Your task to perform on an android device: open chrome and create a bookmark for the current page Image 0: 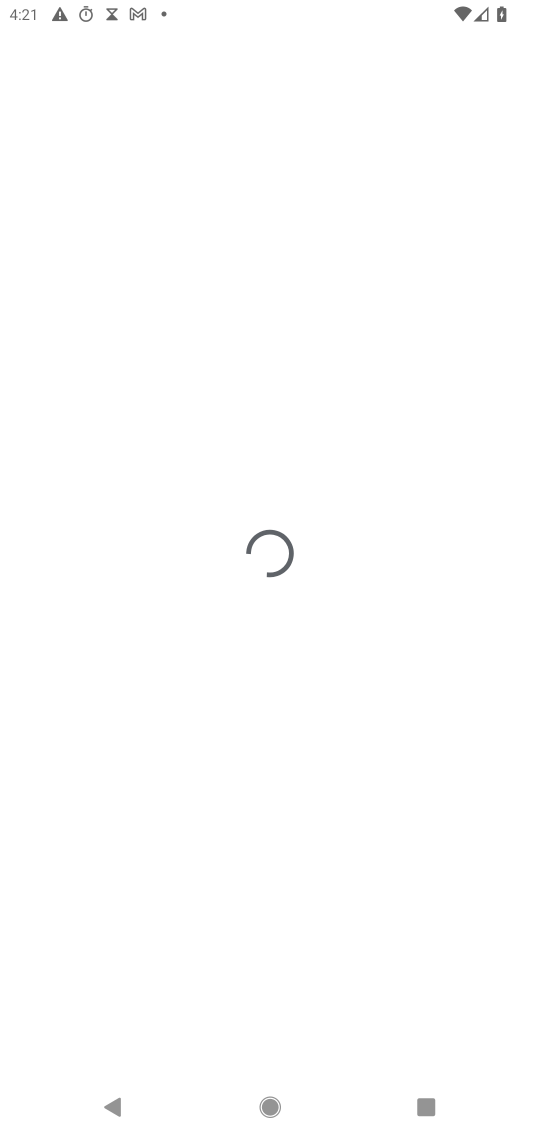
Step 0: press home button
Your task to perform on an android device: open chrome and create a bookmark for the current page Image 1: 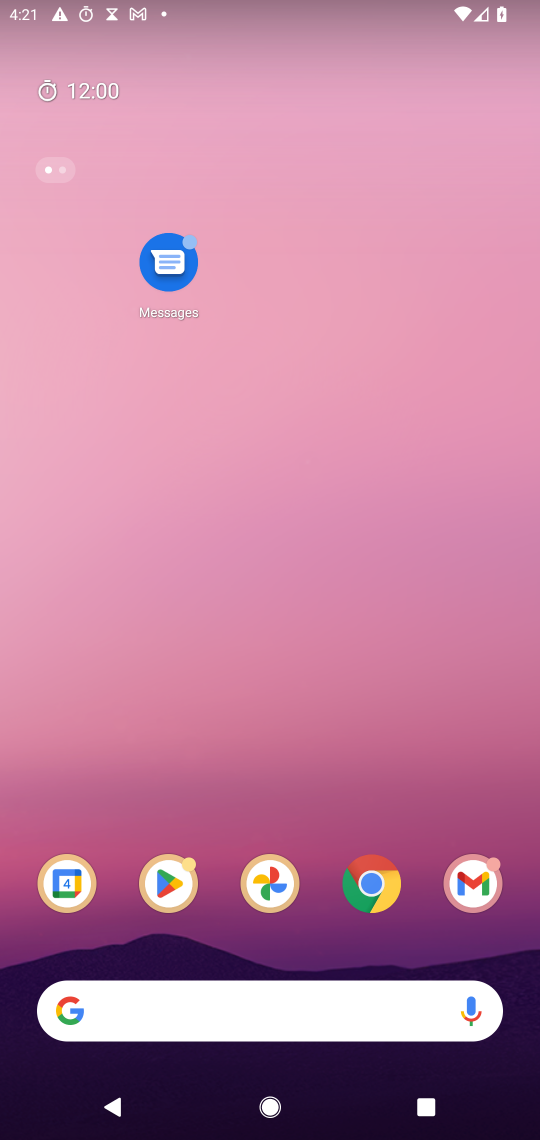
Step 1: drag from (316, 756) to (326, 116)
Your task to perform on an android device: open chrome and create a bookmark for the current page Image 2: 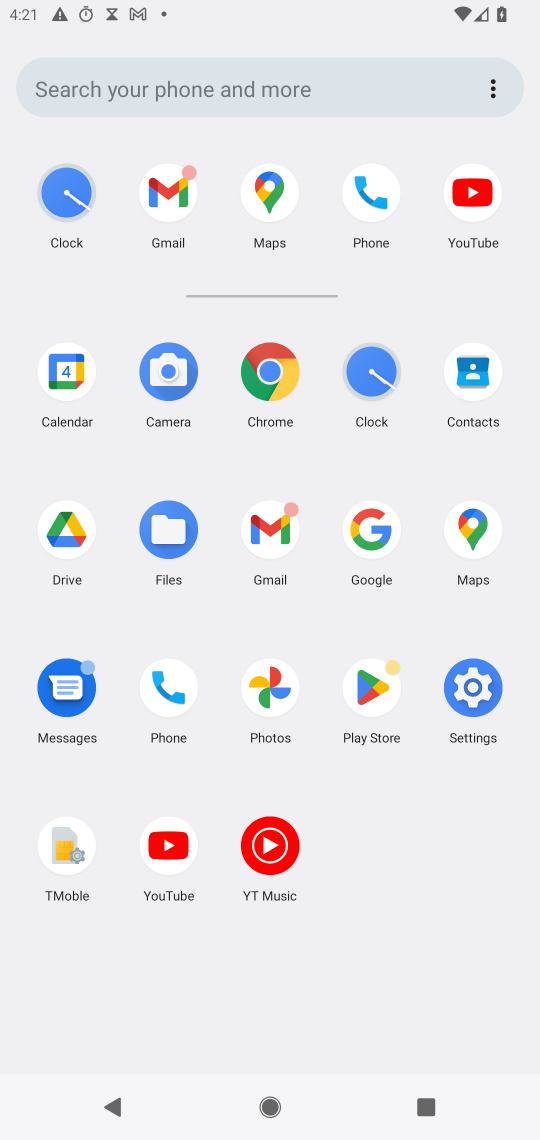
Step 2: click (273, 370)
Your task to perform on an android device: open chrome and create a bookmark for the current page Image 3: 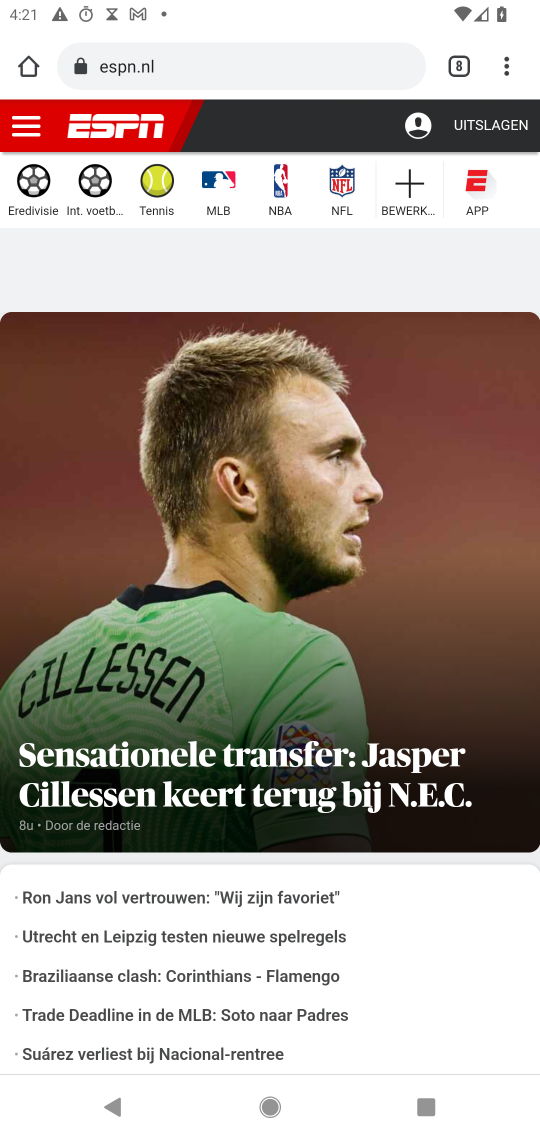
Step 3: click (508, 72)
Your task to perform on an android device: open chrome and create a bookmark for the current page Image 4: 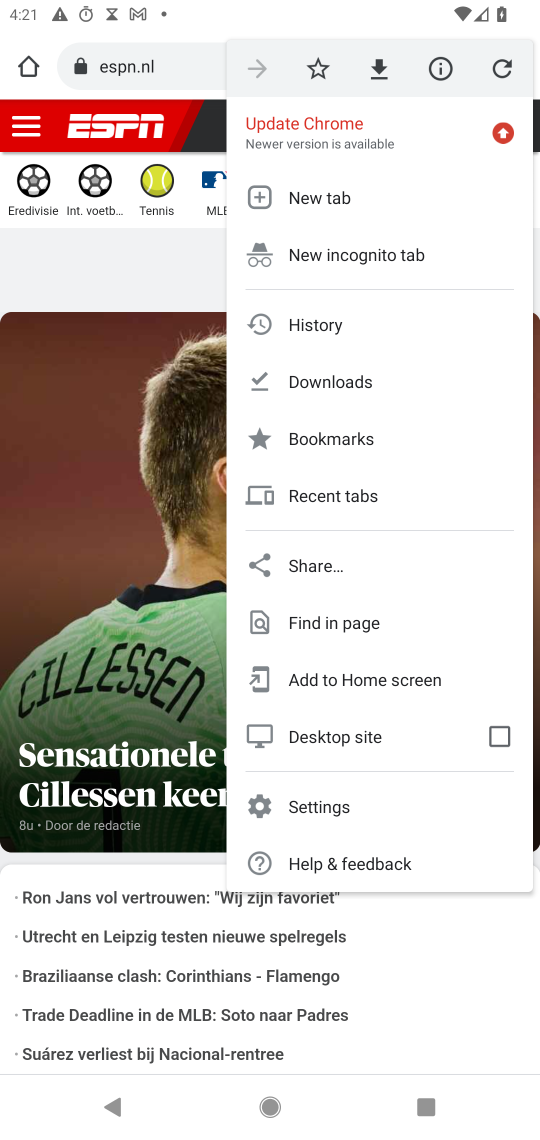
Step 4: click (324, 67)
Your task to perform on an android device: open chrome and create a bookmark for the current page Image 5: 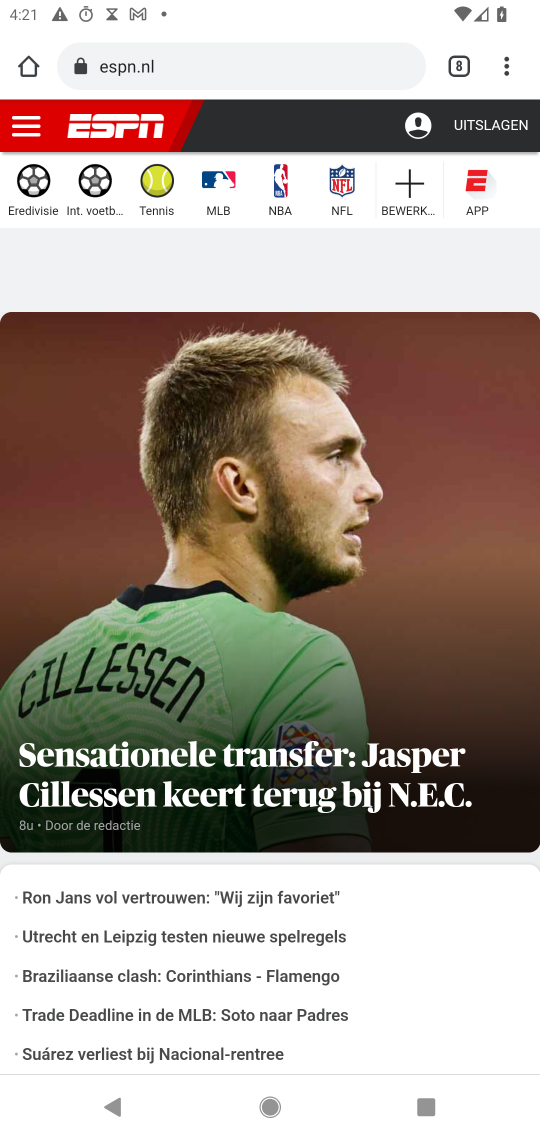
Step 5: task complete